Your task to perform on an android device: Open the calendar app, open the side menu, and click the "Day" option Image 0: 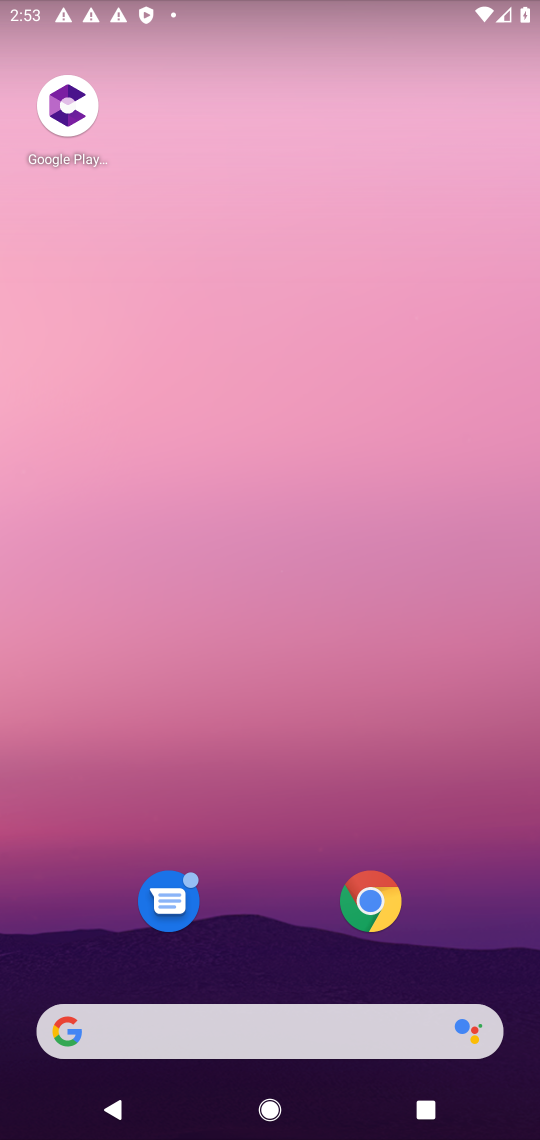
Step 0: drag from (269, 664) to (231, 141)
Your task to perform on an android device: Open the calendar app, open the side menu, and click the "Day" option Image 1: 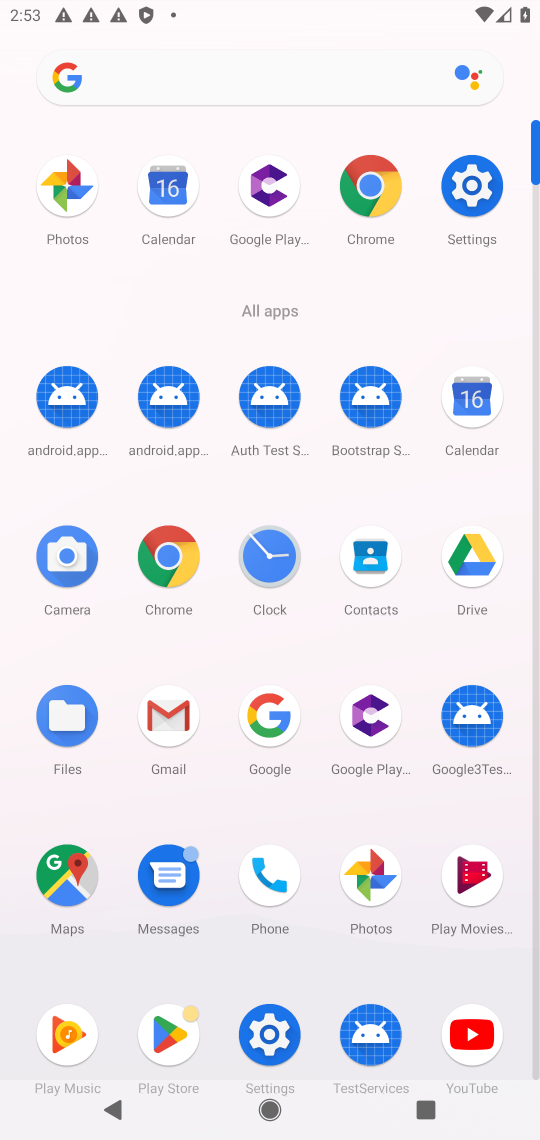
Step 1: click (462, 420)
Your task to perform on an android device: Open the calendar app, open the side menu, and click the "Day" option Image 2: 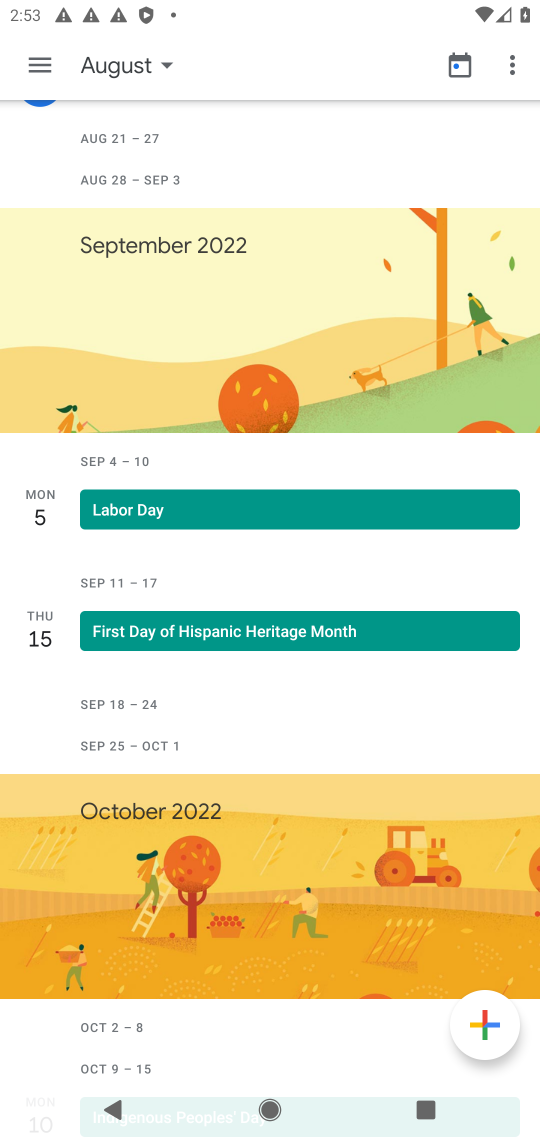
Step 2: click (40, 55)
Your task to perform on an android device: Open the calendar app, open the side menu, and click the "Day" option Image 3: 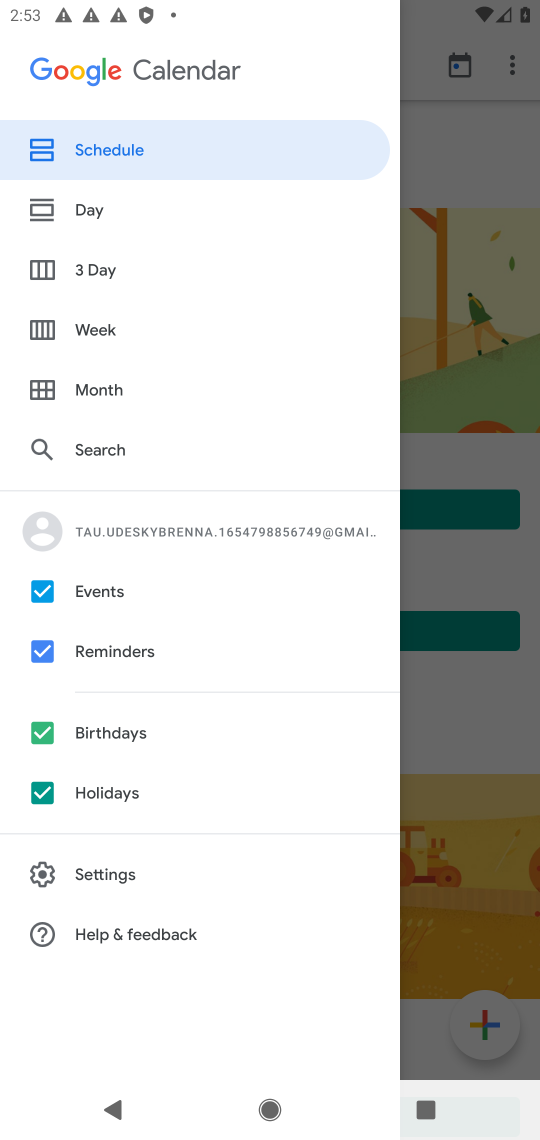
Step 3: click (87, 209)
Your task to perform on an android device: Open the calendar app, open the side menu, and click the "Day" option Image 4: 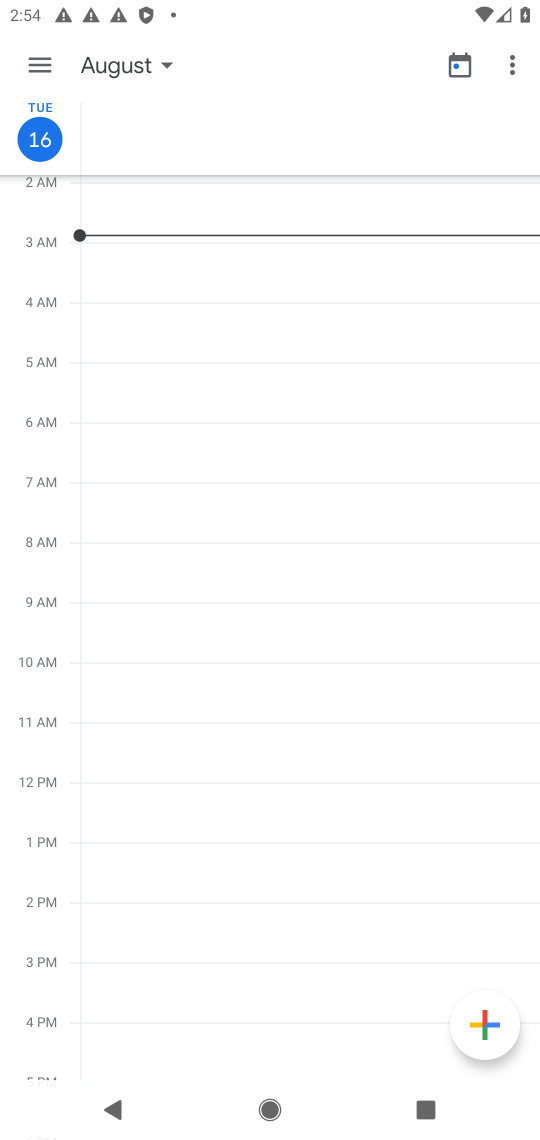
Step 4: task complete